Your task to perform on an android device: What's the weather going to be this weekend? Image 0: 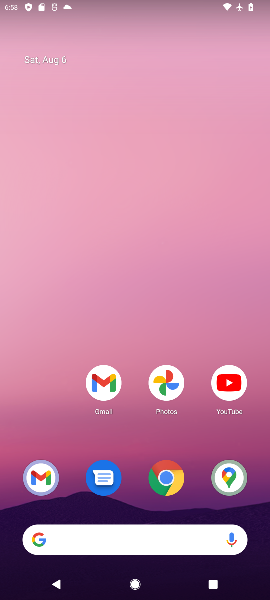
Step 0: click (38, 539)
Your task to perform on an android device: What's the weather going to be this weekend? Image 1: 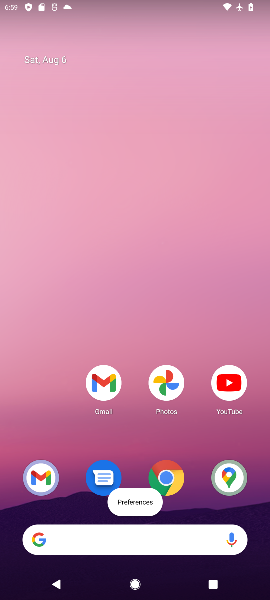
Step 1: click (40, 538)
Your task to perform on an android device: What's the weather going to be this weekend? Image 2: 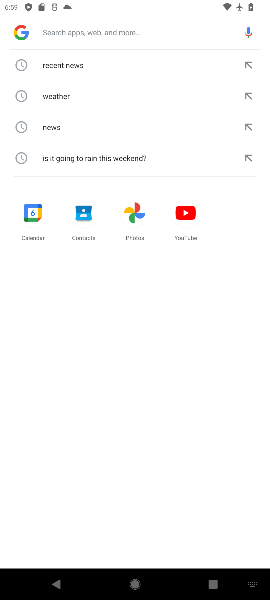
Step 2: type "What's the weather going to be this weekend?"
Your task to perform on an android device: What's the weather going to be this weekend? Image 3: 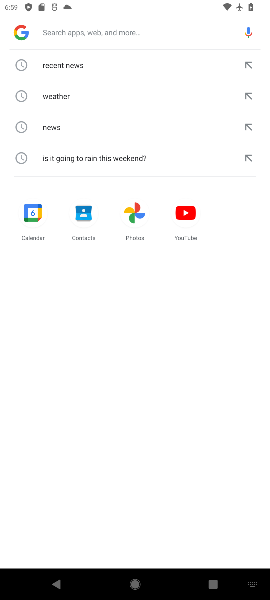
Step 3: click (83, 34)
Your task to perform on an android device: What's the weather going to be this weekend? Image 4: 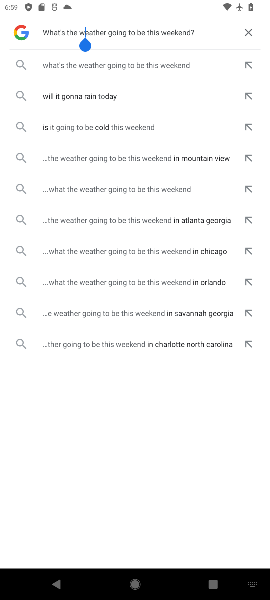
Step 4: press enter
Your task to perform on an android device: What's the weather going to be this weekend? Image 5: 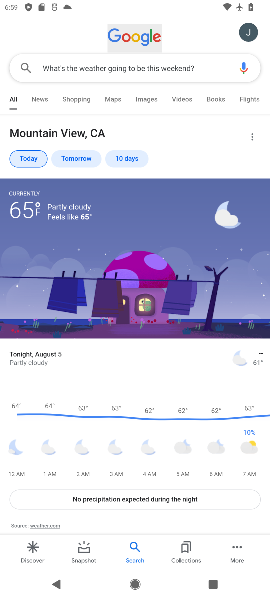
Step 5: task complete